Your task to perform on an android device: See recent photos Image 0: 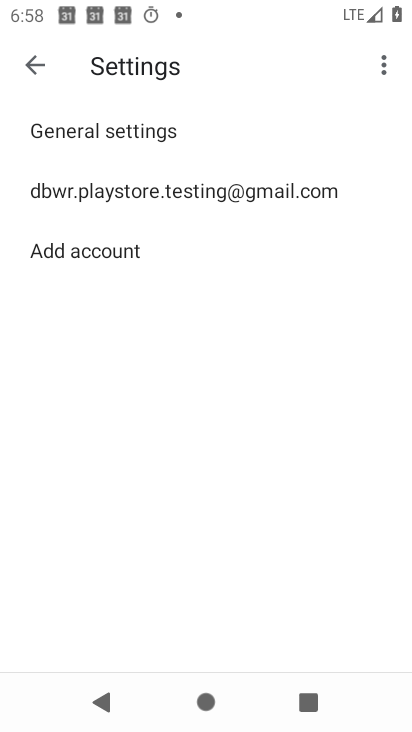
Step 0: press home button
Your task to perform on an android device: See recent photos Image 1: 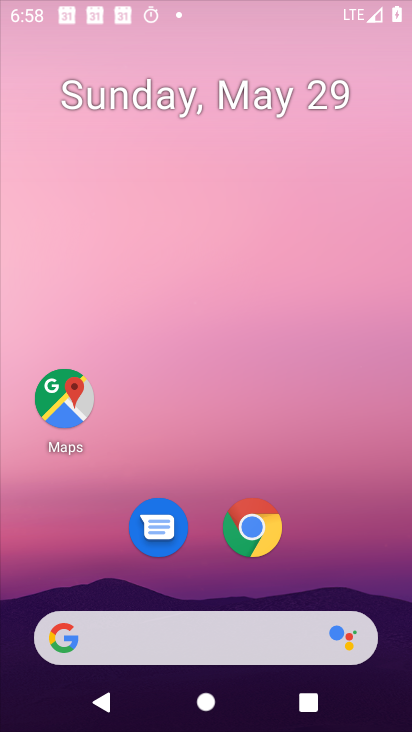
Step 1: drag from (354, 560) to (291, 23)
Your task to perform on an android device: See recent photos Image 2: 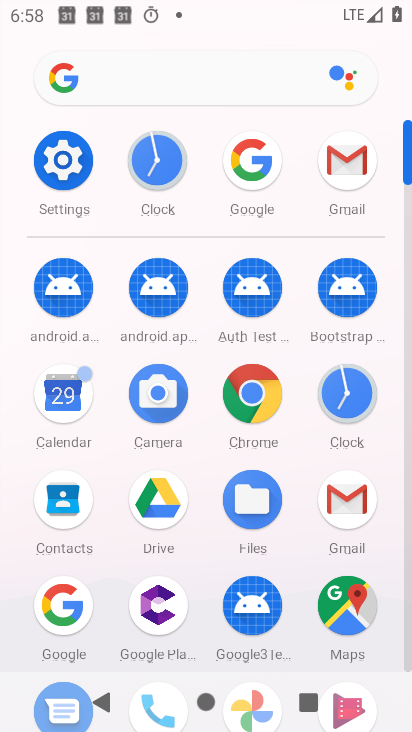
Step 2: drag from (254, 651) to (263, 133)
Your task to perform on an android device: See recent photos Image 3: 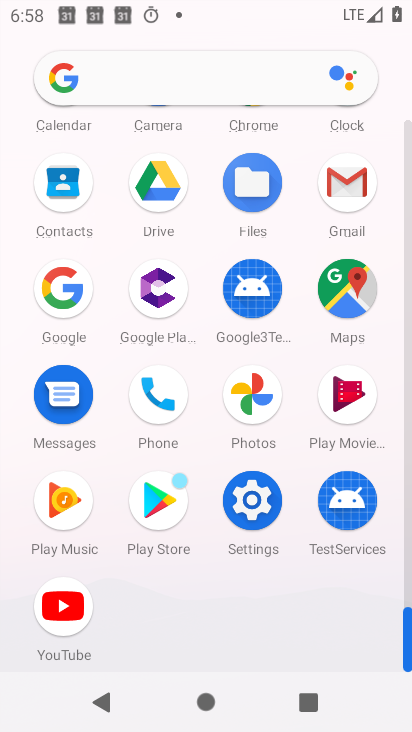
Step 3: click (257, 414)
Your task to perform on an android device: See recent photos Image 4: 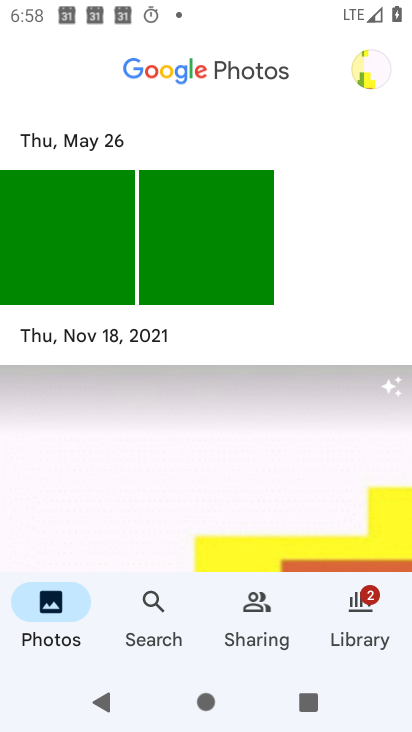
Step 4: click (81, 252)
Your task to perform on an android device: See recent photos Image 5: 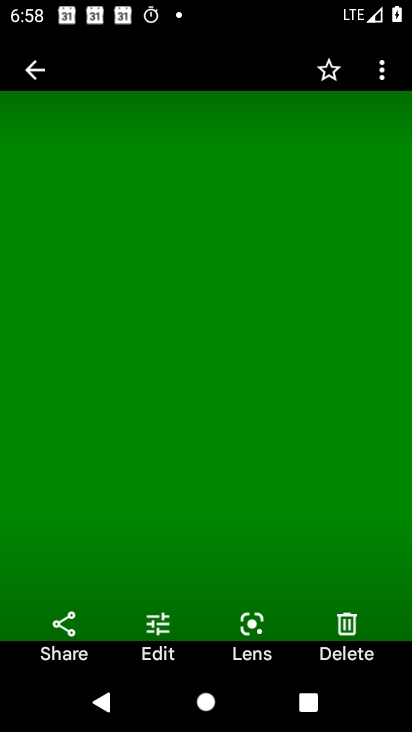
Step 5: task complete